Your task to perform on an android device: see tabs open on other devices in the chrome app Image 0: 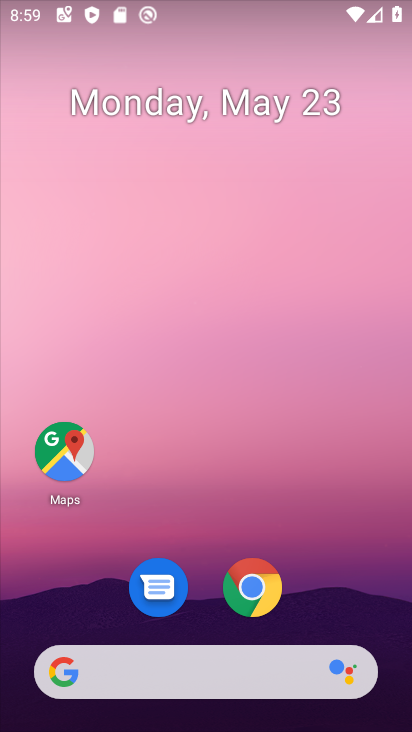
Step 0: click (261, 602)
Your task to perform on an android device: see tabs open on other devices in the chrome app Image 1: 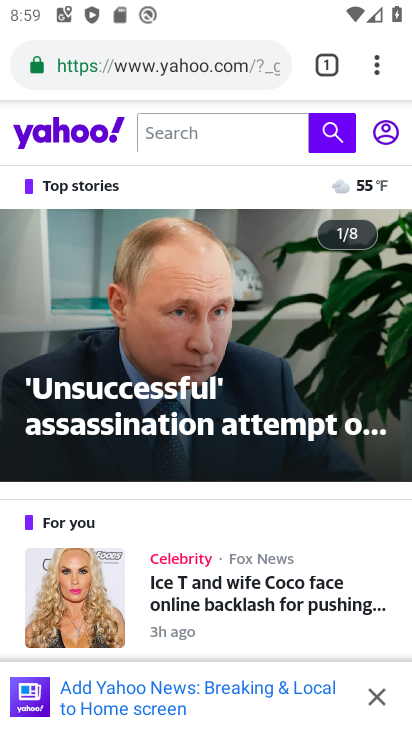
Step 1: click (376, 62)
Your task to perform on an android device: see tabs open on other devices in the chrome app Image 2: 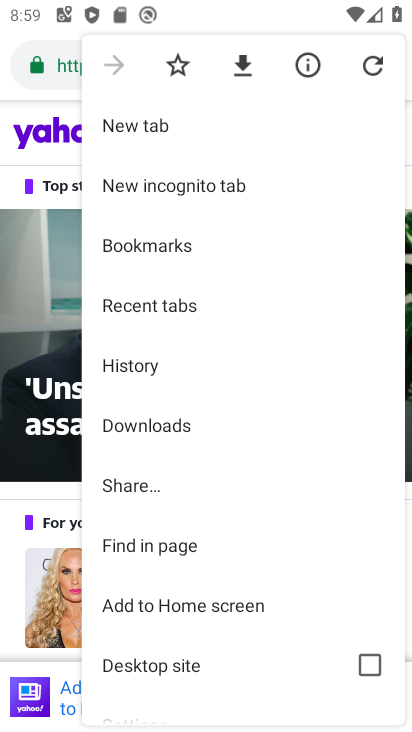
Step 2: click (137, 300)
Your task to perform on an android device: see tabs open on other devices in the chrome app Image 3: 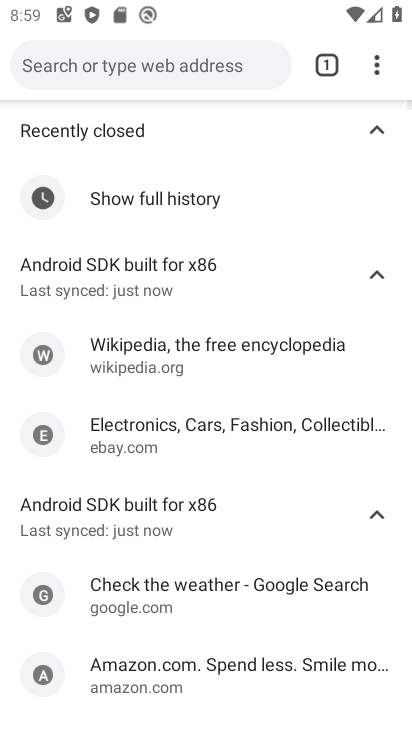
Step 3: task complete